Your task to perform on an android device: Show me productivity apps on the Play Store Image 0: 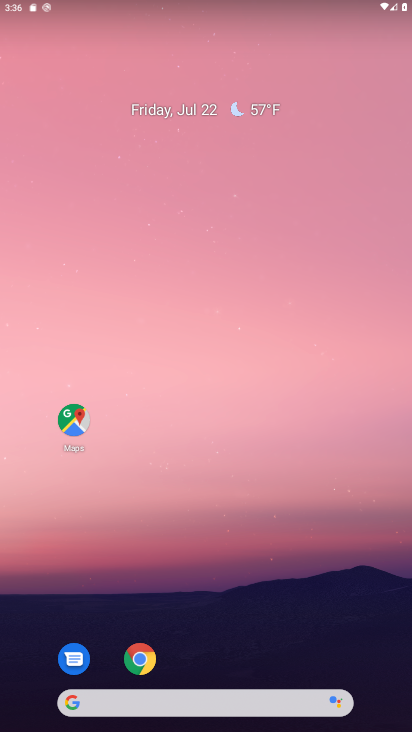
Step 0: drag from (251, 640) to (251, 26)
Your task to perform on an android device: Show me productivity apps on the Play Store Image 1: 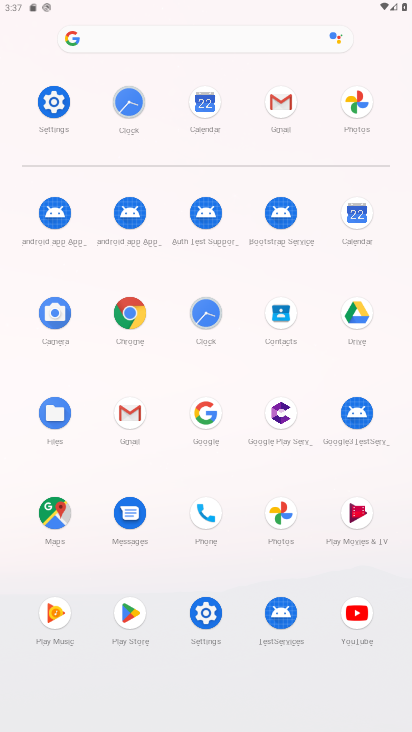
Step 1: click (135, 619)
Your task to perform on an android device: Show me productivity apps on the Play Store Image 2: 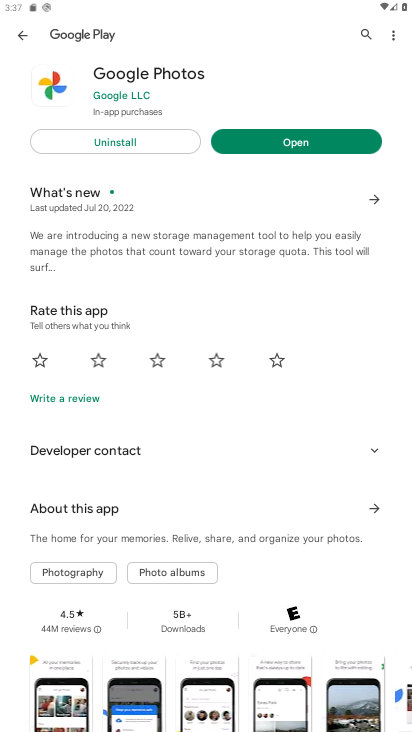
Step 2: click (16, 37)
Your task to perform on an android device: Show me productivity apps on the Play Store Image 3: 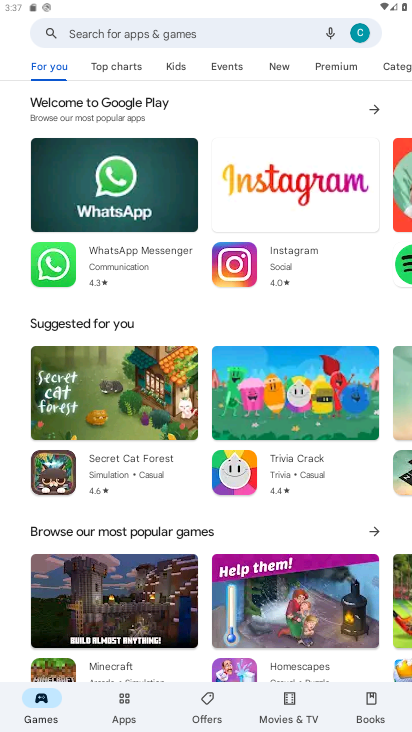
Step 3: click (123, 716)
Your task to perform on an android device: Show me productivity apps on the Play Store Image 4: 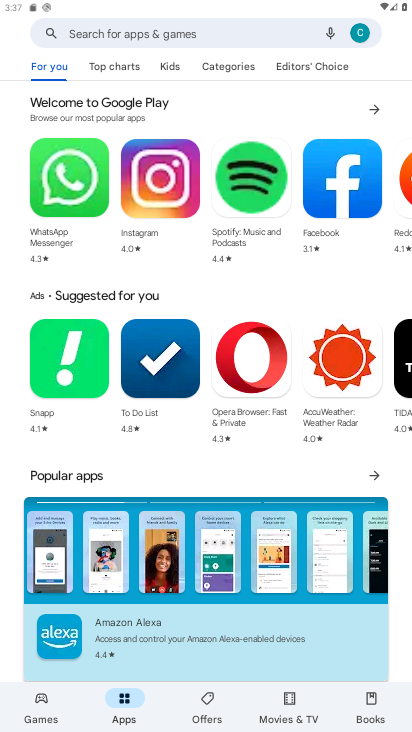
Step 4: click (223, 60)
Your task to perform on an android device: Show me productivity apps on the Play Store Image 5: 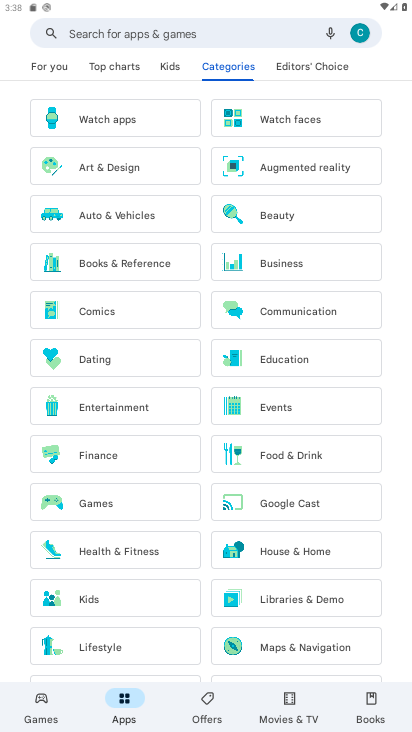
Step 5: drag from (206, 587) to (206, 126)
Your task to perform on an android device: Show me productivity apps on the Play Store Image 6: 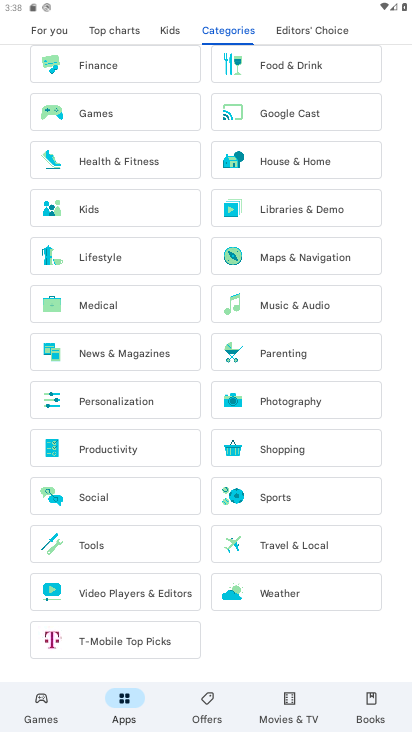
Step 6: click (149, 446)
Your task to perform on an android device: Show me productivity apps on the Play Store Image 7: 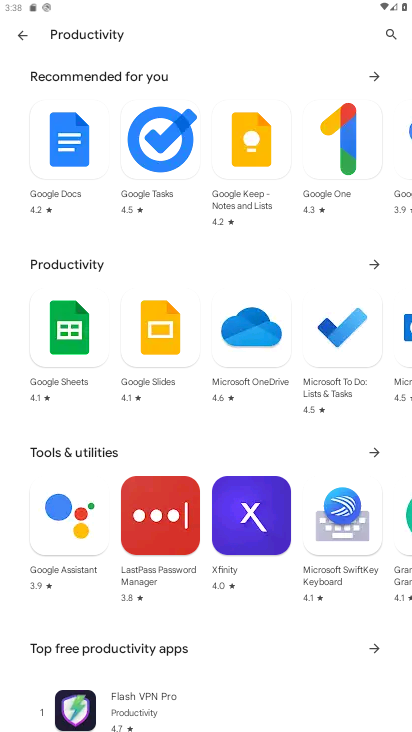
Step 7: task complete